Your task to perform on an android device: find photos in the google photos app Image 0: 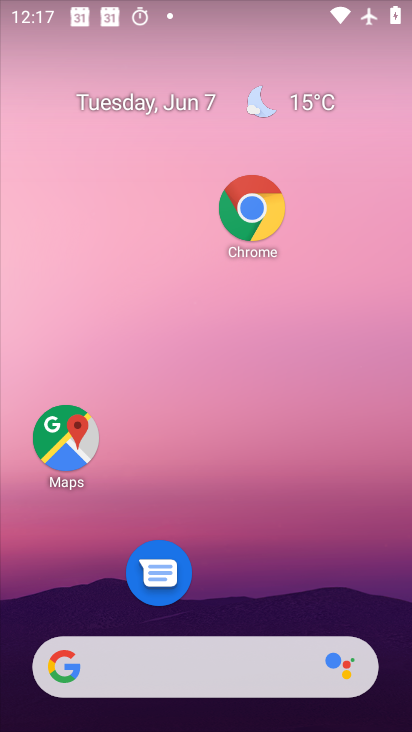
Step 0: drag from (218, 583) to (165, 161)
Your task to perform on an android device: find photos in the google photos app Image 1: 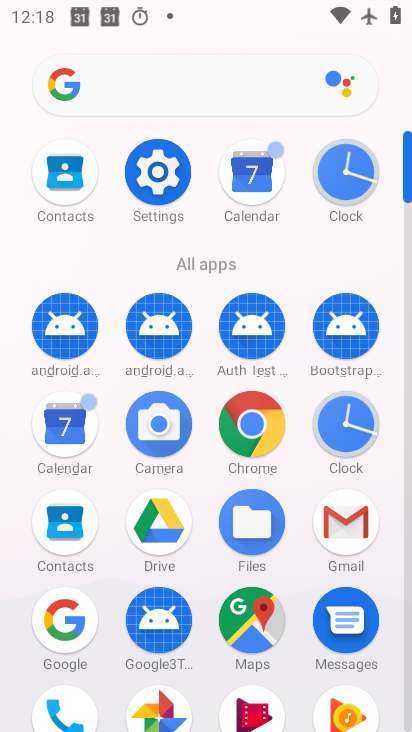
Step 1: drag from (171, 562) to (176, 227)
Your task to perform on an android device: find photos in the google photos app Image 2: 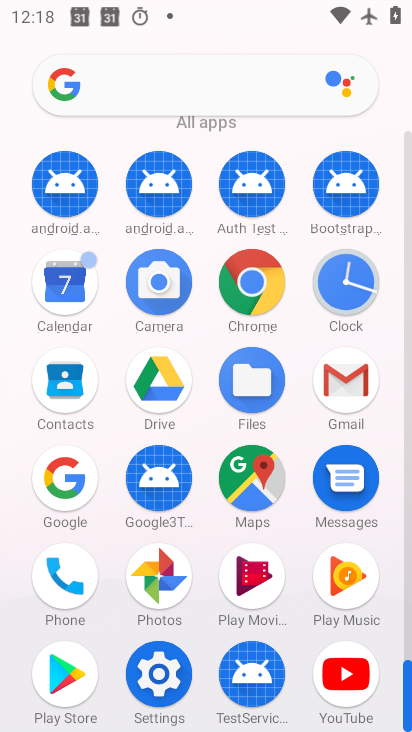
Step 2: click (177, 568)
Your task to perform on an android device: find photos in the google photos app Image 3: 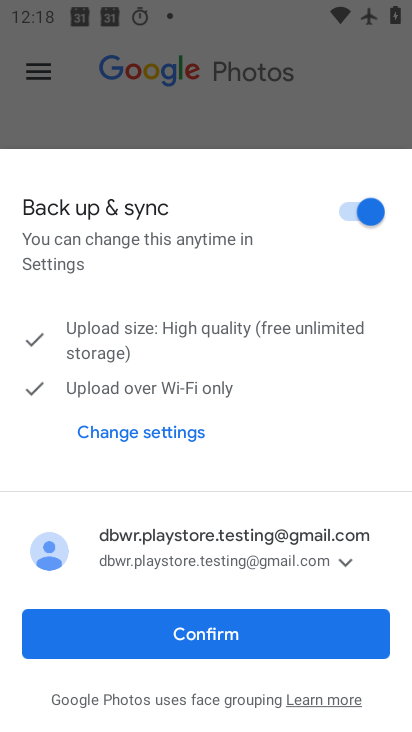
Step 3: click (209, 622)
Your task to perform on an android device: find photos in the google photos app Image 4: 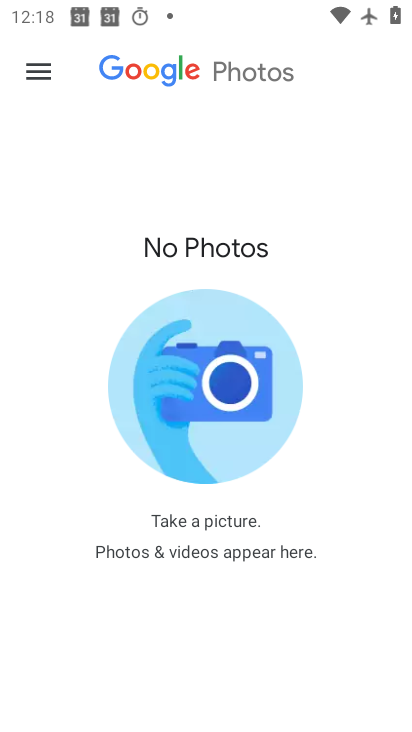
Step 4: click (44, 82)
Your task to perform on an android device: find photos in the google photos app Image 5: 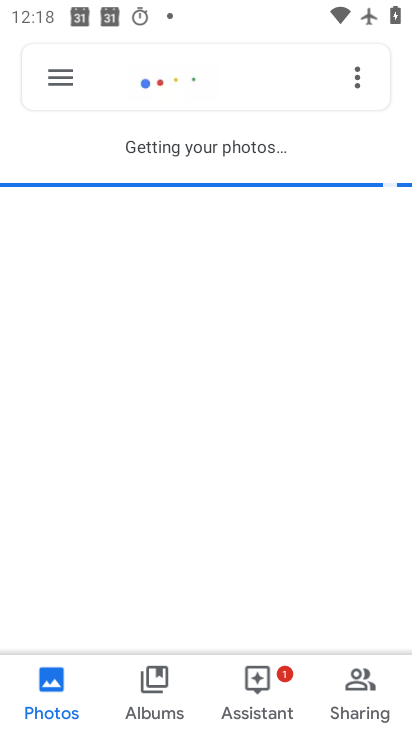
Step 5: click (217, 66)
Your task to perform on an android device: find photos in the google photos app Image 6: 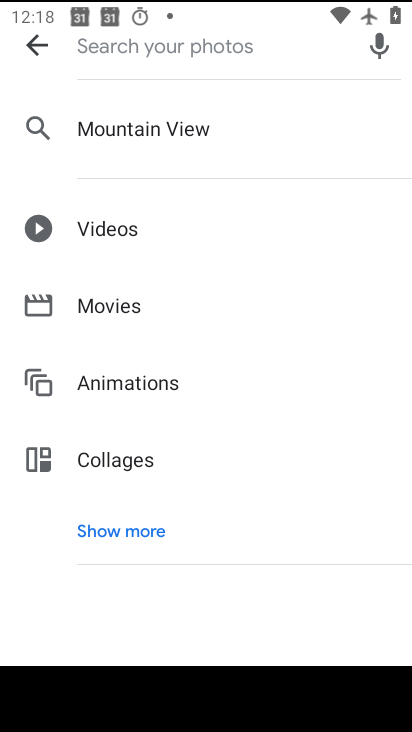
Step 6: type "aaa"
Your task to perform on an android device: find photos in the google photos app Image 7: 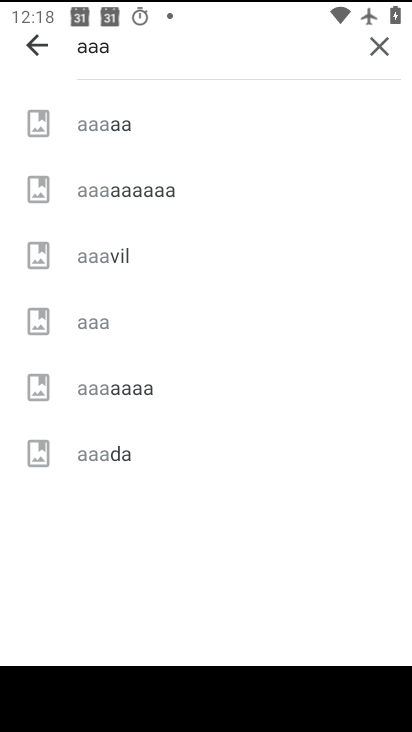
Step 7: click (123, 131)
Your task to perform on an android device: find photos in the google photos app Image 8: 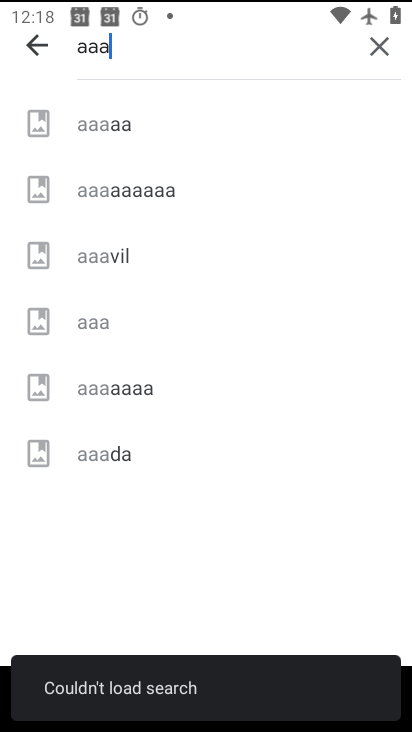
Step 8: click (106, 124)
Your task to perform on an android device: find photos in the google photos app Image 9: 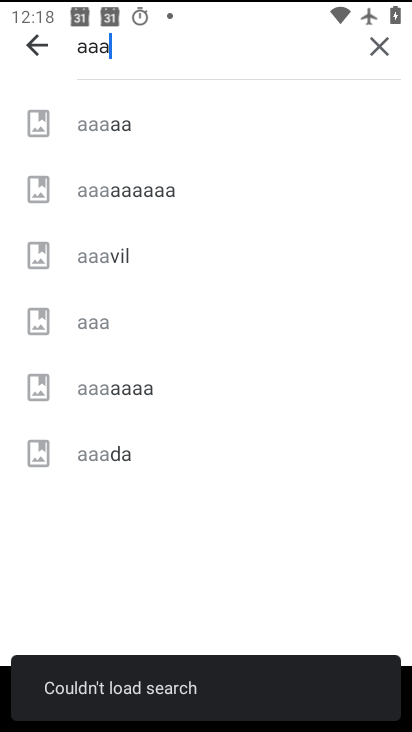
Step 9: click (79, 318)
Your task to perform on an android device: find photos in the google photos app Image 10: 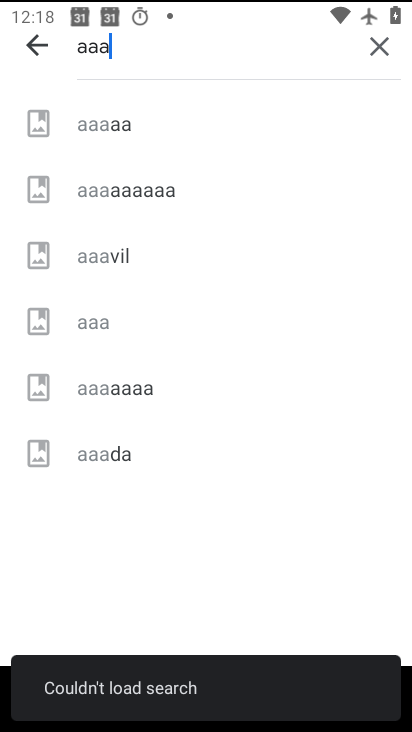
Step 10: click (95, 323)
Your task to perform on an android device: find photos in the google photos app Image 11: 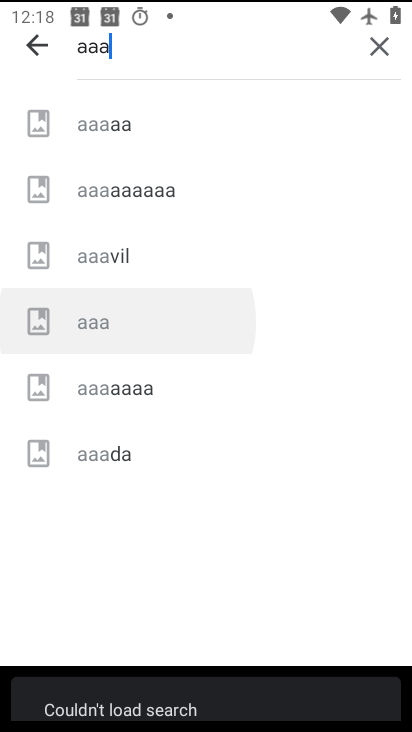
Step 11: click (102, 364)
Your task to perform on an android device: find photos in the google photos app Image 12: 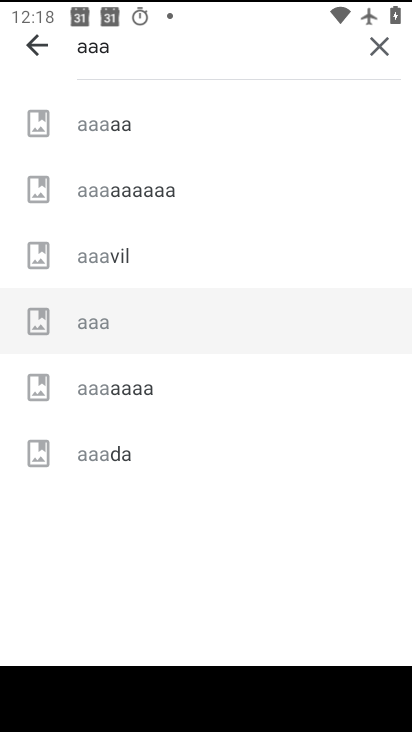
Step 12: click (102, 393)
Your task to perform on an android device: find photos in the google photos app Image 13: 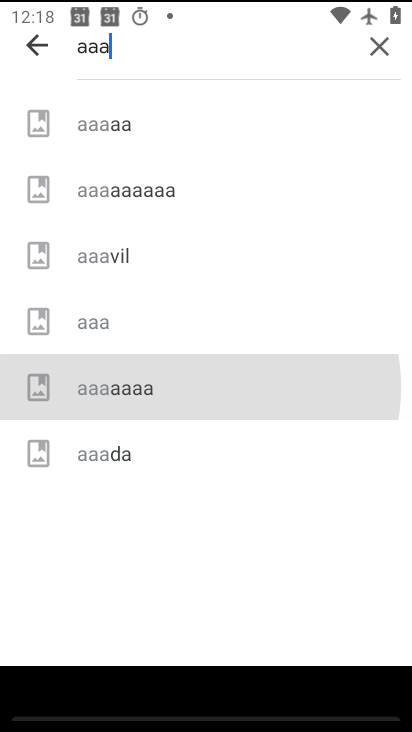
Step 13: click (115, 410)
Your task to perform on an android device: find photos in the google photos app Image 14: 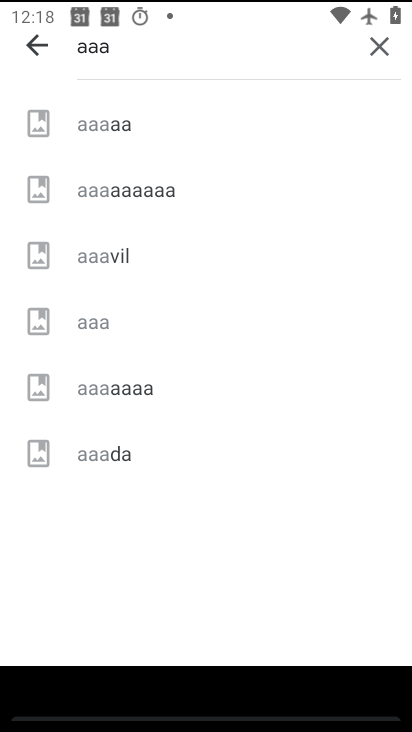
Step 14: click (115, 329)
Your task to perform on an android device: find photos in the google photos app Image 15: 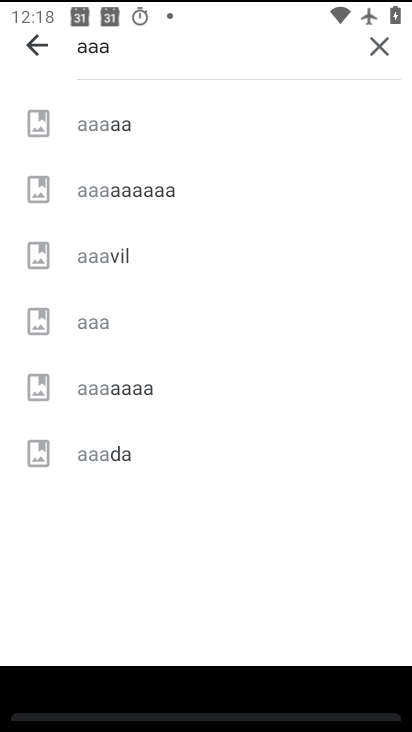
Step 15: click (121, 211)
Your task to perform on an android device: find photos in the google photos app Image 16: 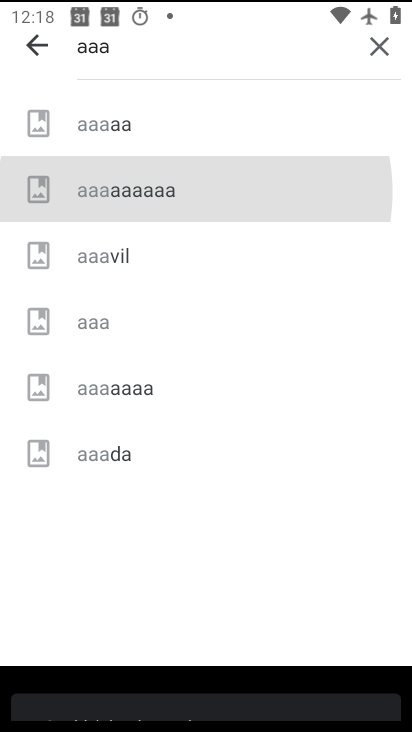
Step 16: click (121, 192)
Your task to perform on an android device: find photos in the google photos app Image 17: 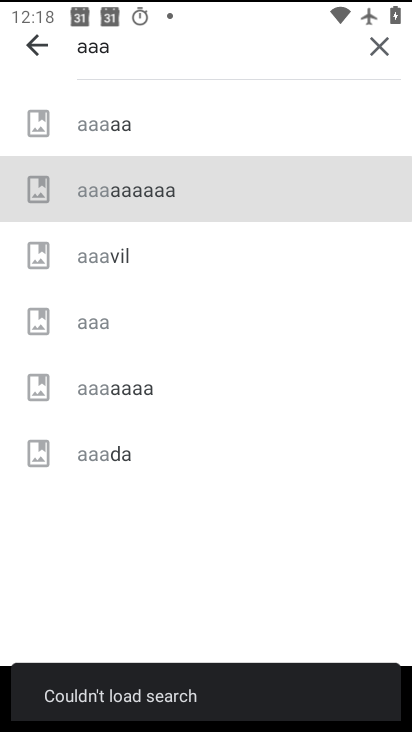
Step 17: click (120, 189)
Your task to perform on an android device: find photos in the google photos app Image 18: 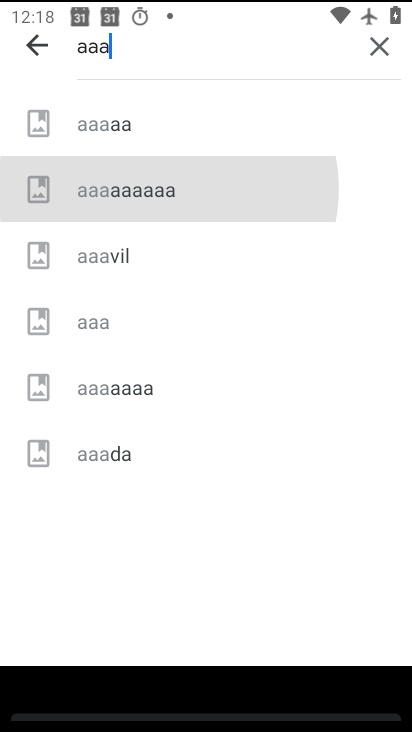
Step 18: click (111, 132)
Your task to perform on an android device: find photos in the google photos app Image 19: 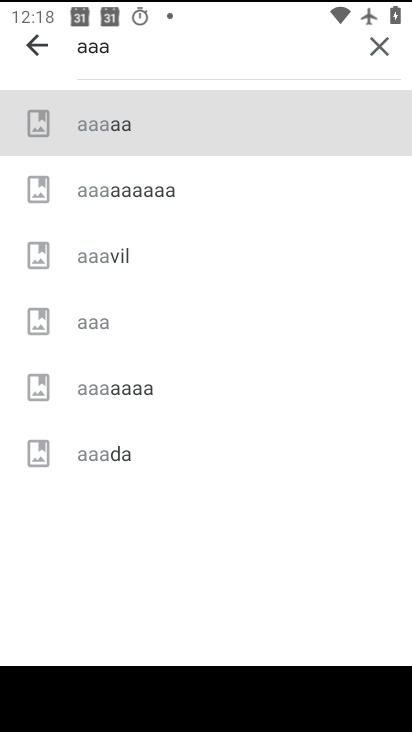
Step 19: click (111, 132)
Your task to perform on an android device: find photos in the google photos app Image 20: 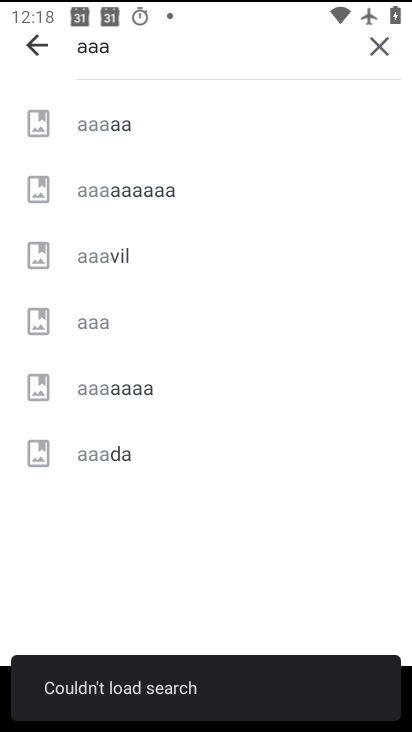
Step 20: task complete